Your task to perform on an android device: Go to Wikipedia Image 0: 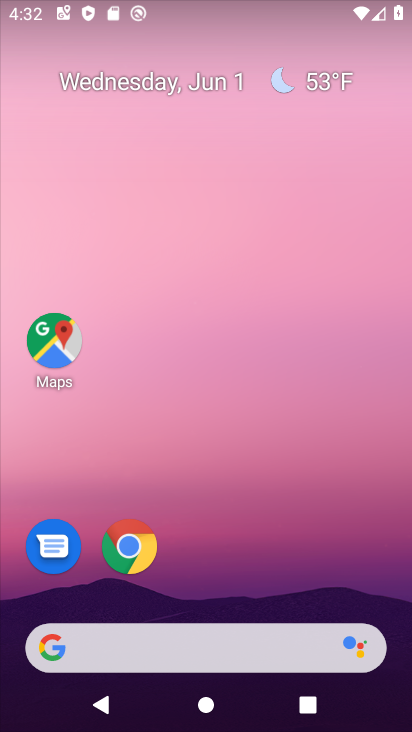
Step 0: click (125, 548)
Your task to perform on an android device: Go to Wikipedia Image 1: 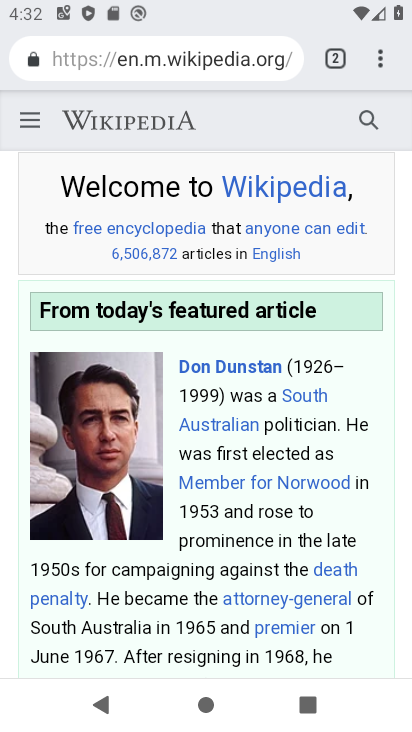
Step 1: task complete